Your task to perform on an android device: find photos in the google photos app Image 0: 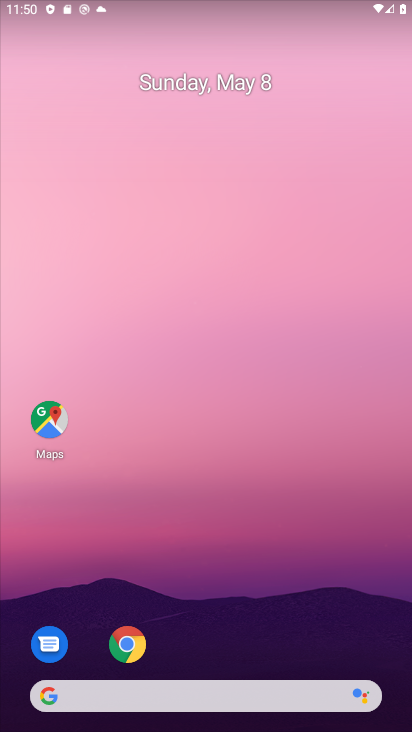
Step 0: drag from (241, 636) to (199, 7)
Your task to perform on an android device: find photos in the google photos app Image 1: 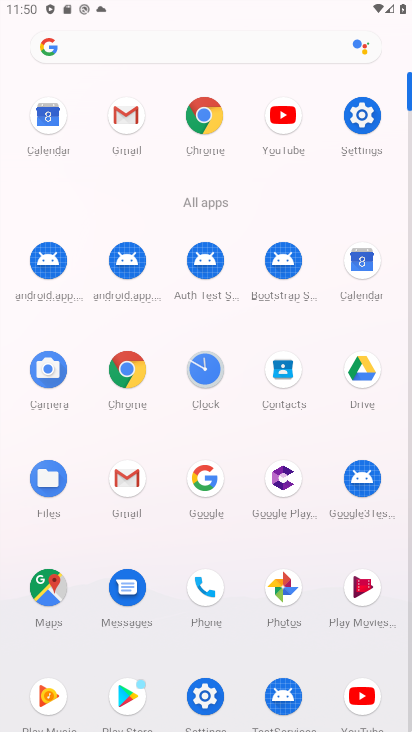
Step 1: click (287, 588)
Your task to perform on an android device: find photos in the google photos app Image 2: 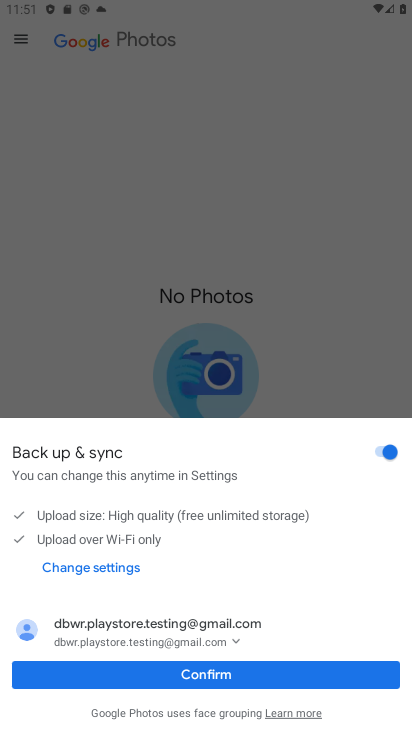
Step 2: click (240, 677)
Your task to perform on an android device: find photos in the google photos app Image 3: 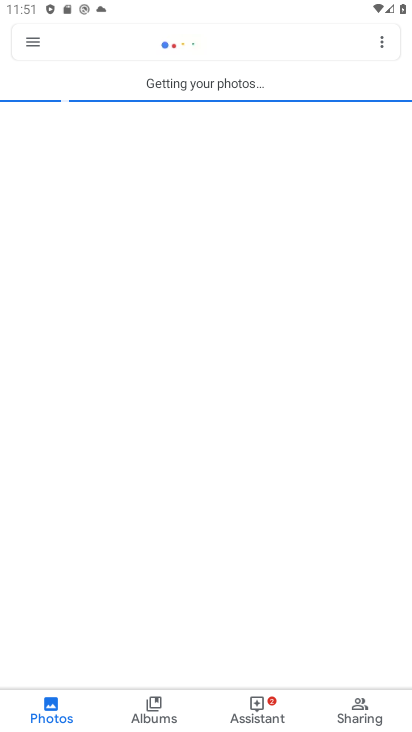
Step 3: click (57, 713)
Your task to perform on an android device: find photos in the google photos app Image 4: 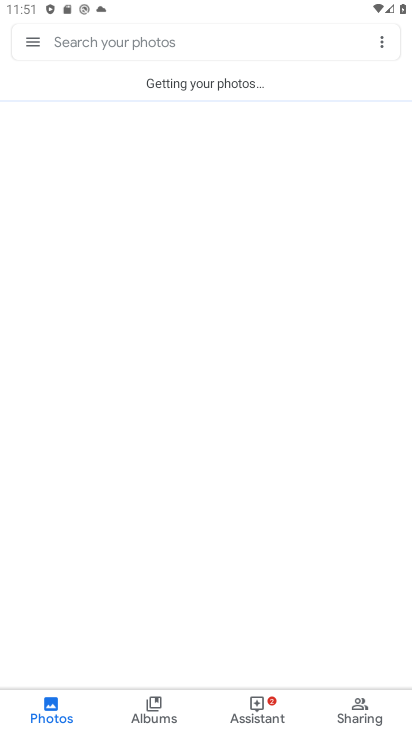
Step 4: task complete